Your task to perform on an android device: Check the weather Image 0: 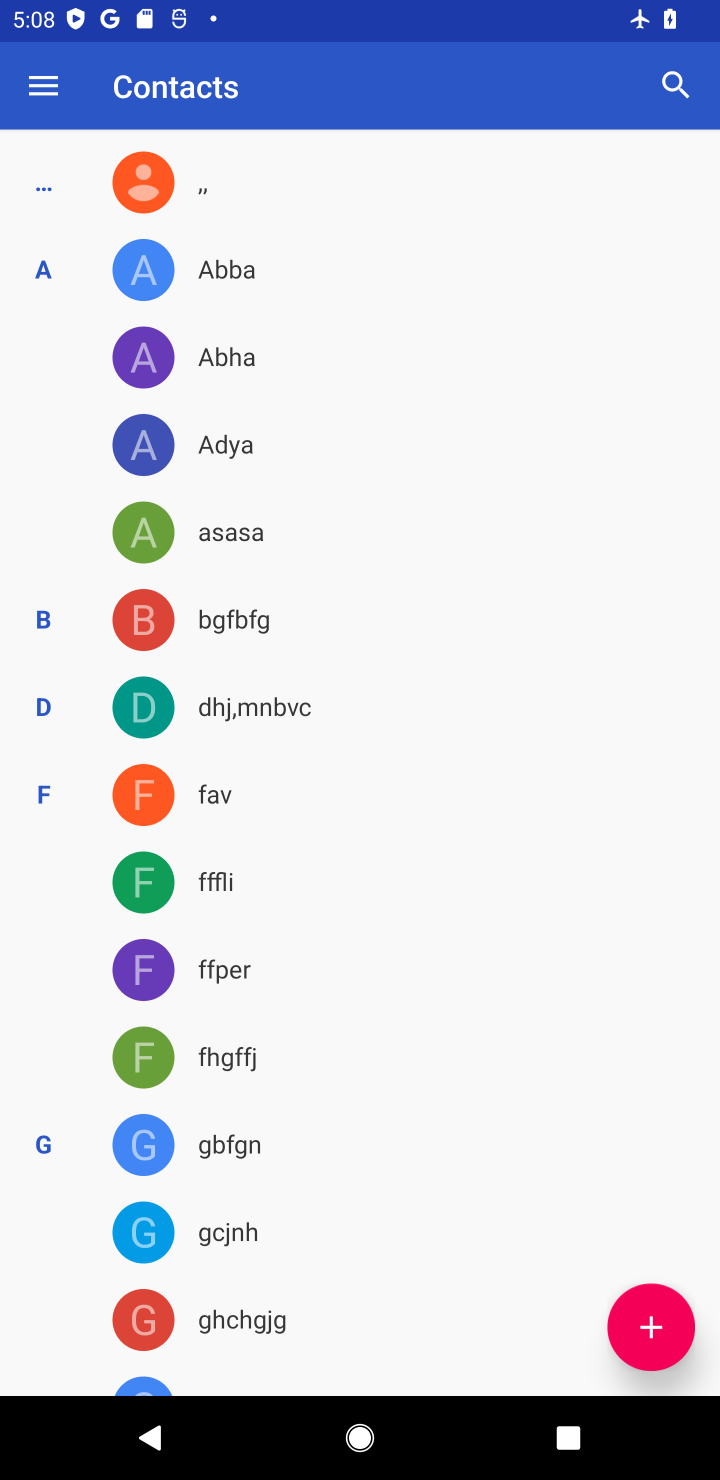
Step 0: press home button
Your task to perform on an android device: Check the weather Image 1: 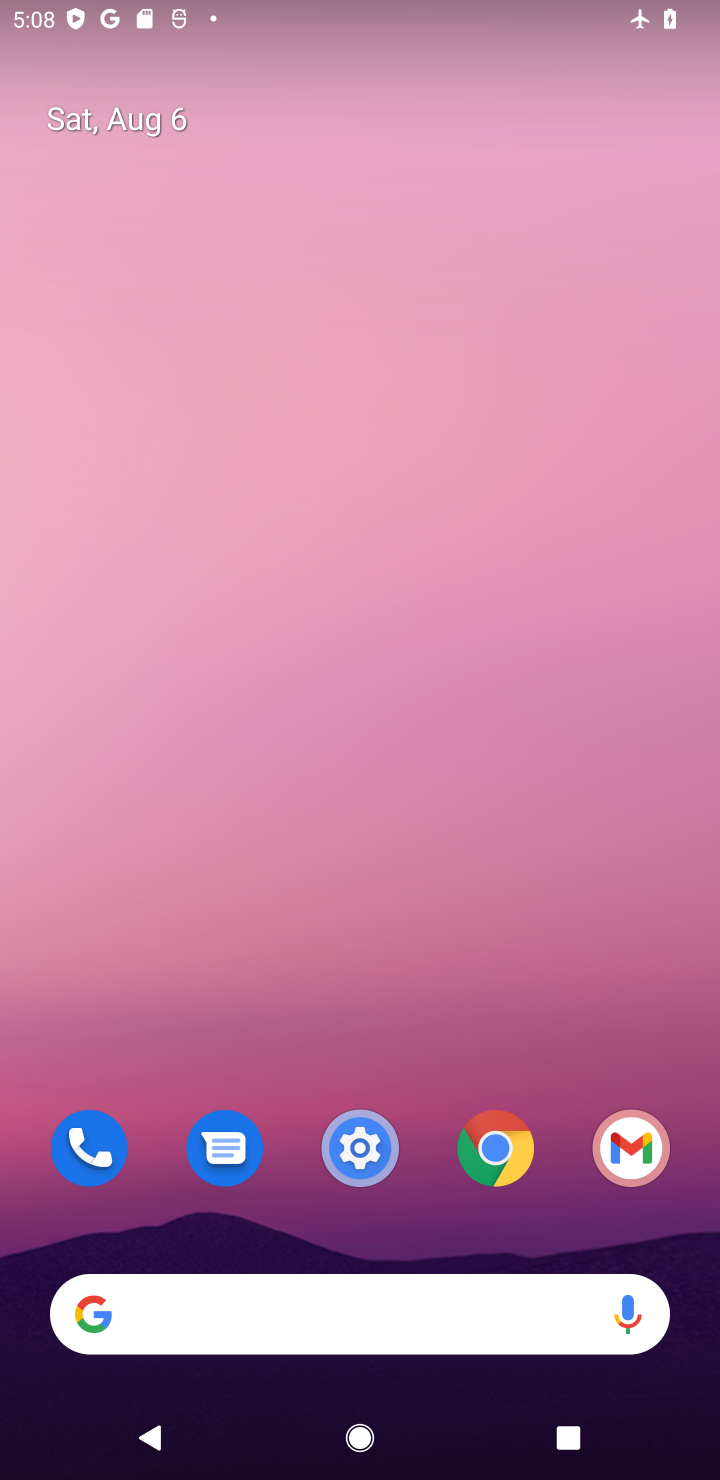
Step 1: click (360, 1300)
Your task to perform on an android device: Check the weather Image 2: 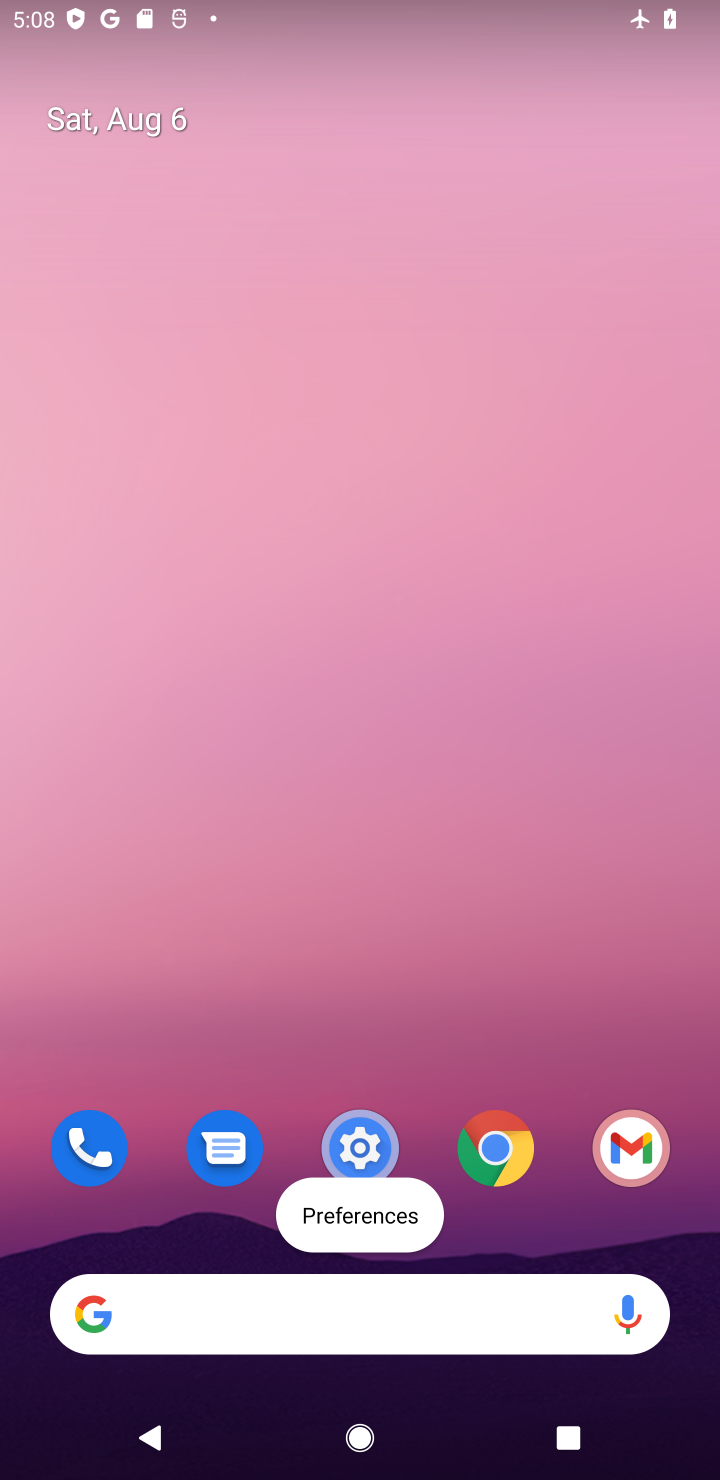
Step 2: click (351, 1321)
Your task to perform on an android device: Check the weather Image 3: 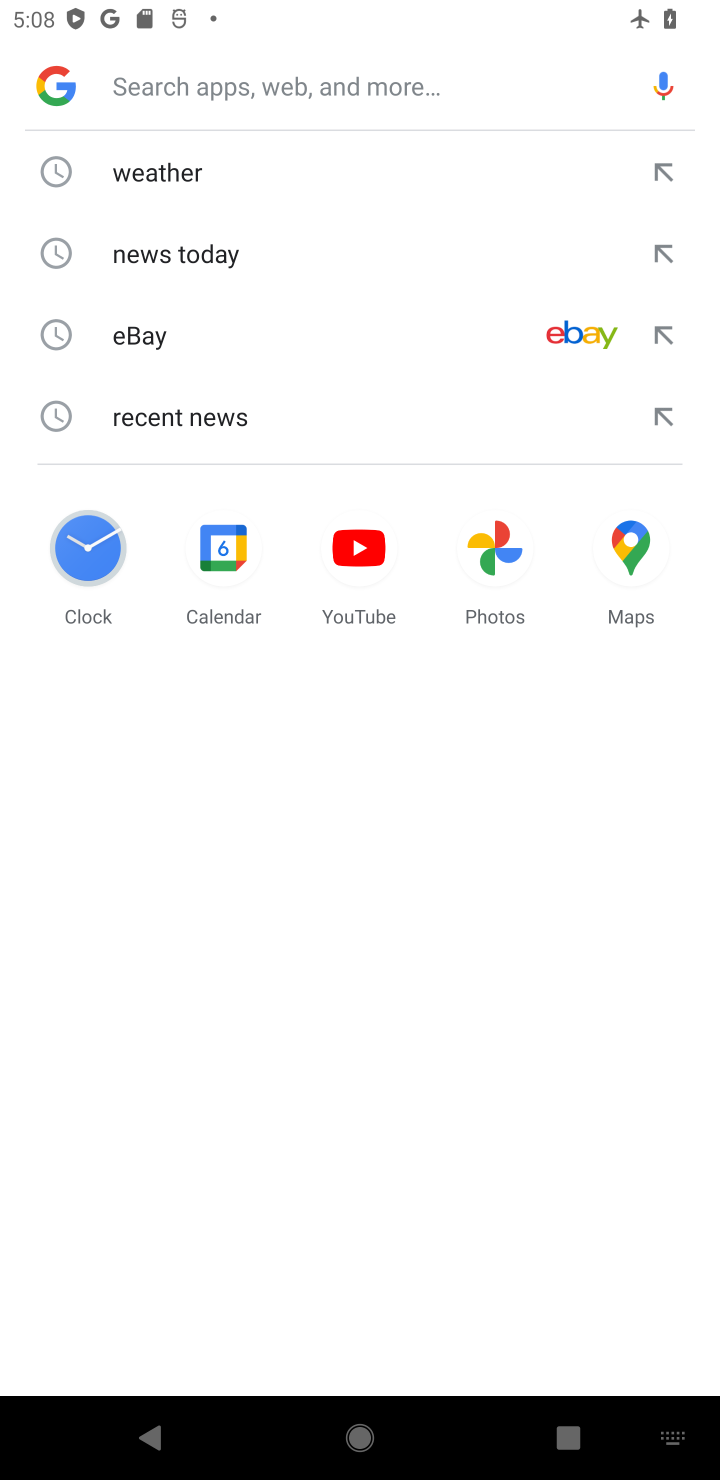
Step 3: click (185, 190)
Your task to perform on an android device: Check the weather Image 4: 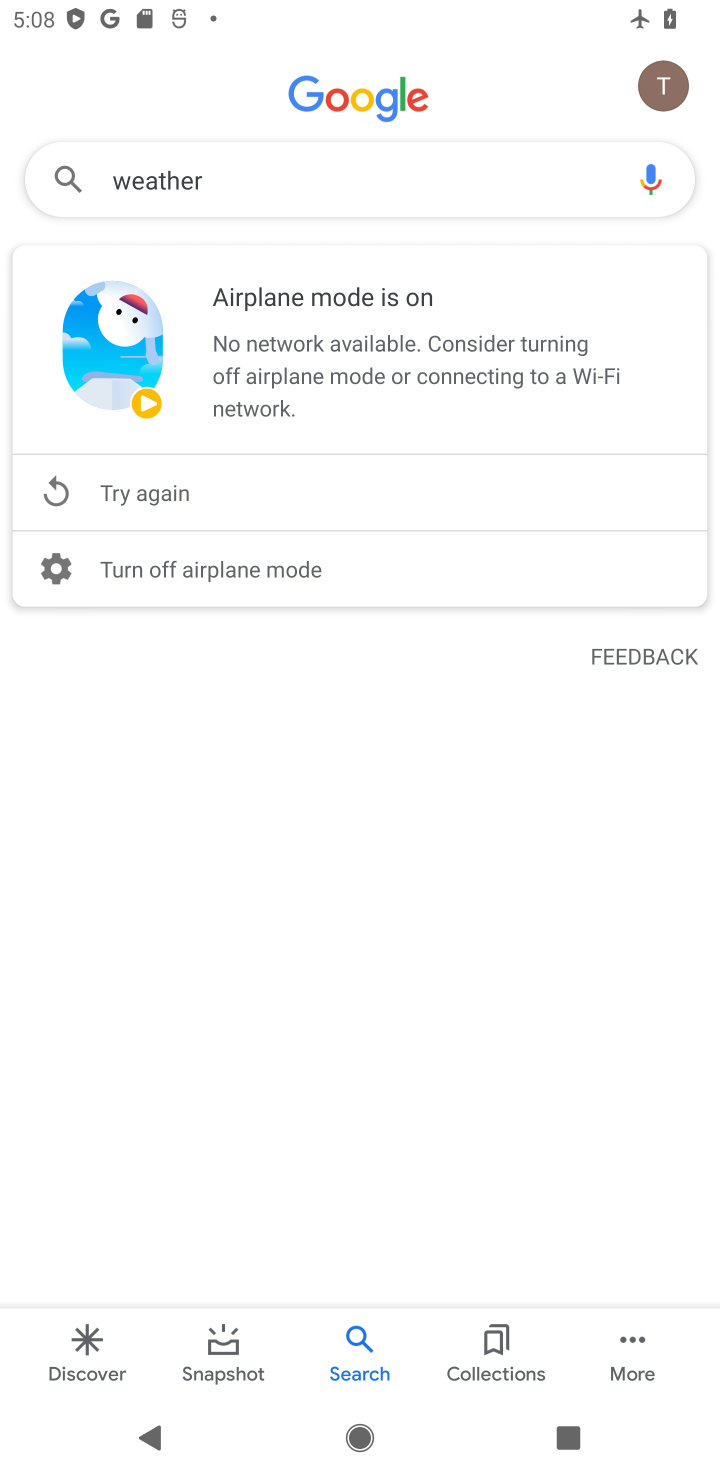
Step 4: task complete